Your task to perform on an android device: turn on improve location accuracy Image 0: 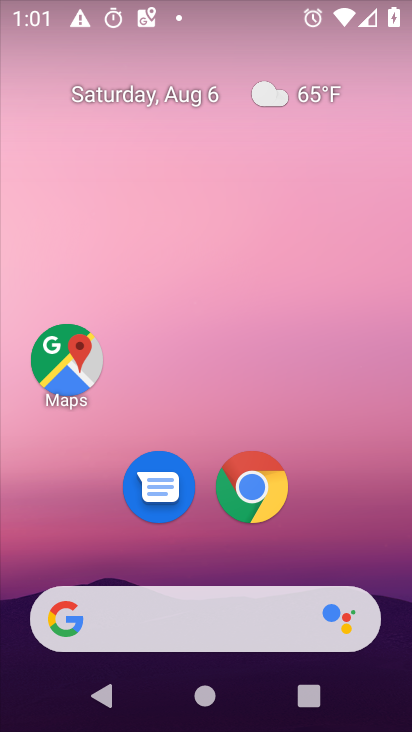
Step 0: drag from (209, 508) to (284, 56)
Your task to perform on an android device: turn on improve location accuracy Image 1: 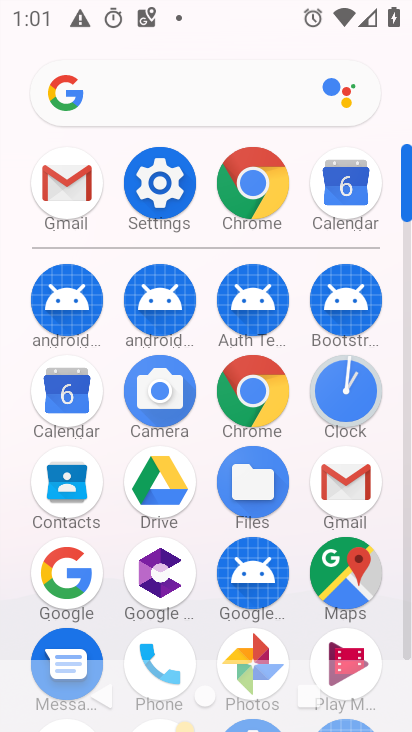
Step 1: click (175, 184)
Your task to perform on an android device: turn on improve location accuracy Image 2: 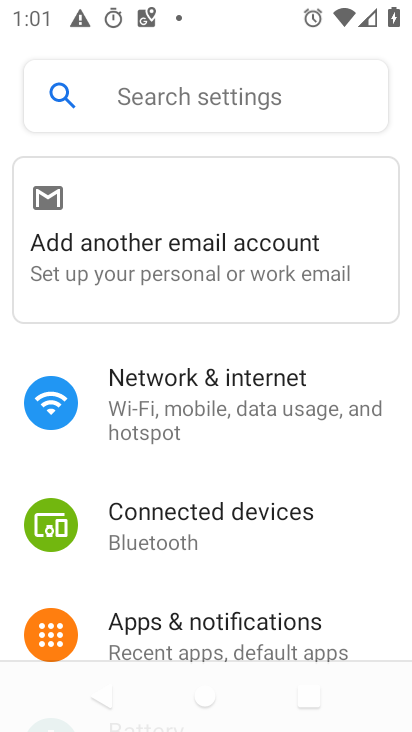
Step 2: drag from (193, 574) to (327, 17)
Your task to perform on an android device: turn on improve location accuracy Image 3: 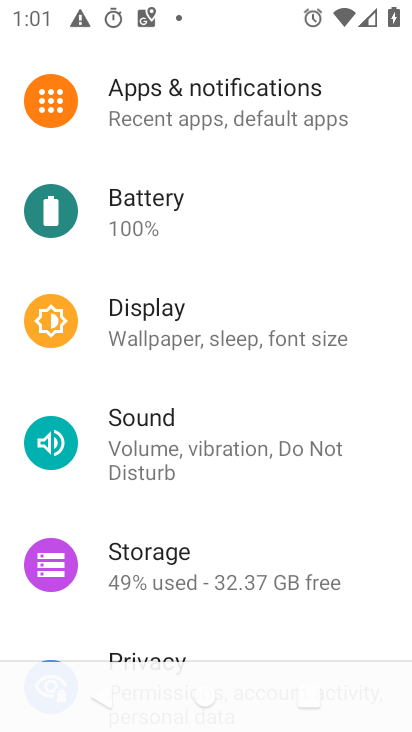
Step 3: drag from (208, 586) to (317, 45)
Your task to perform on an android device: turn on improve location accuracy Image 4: 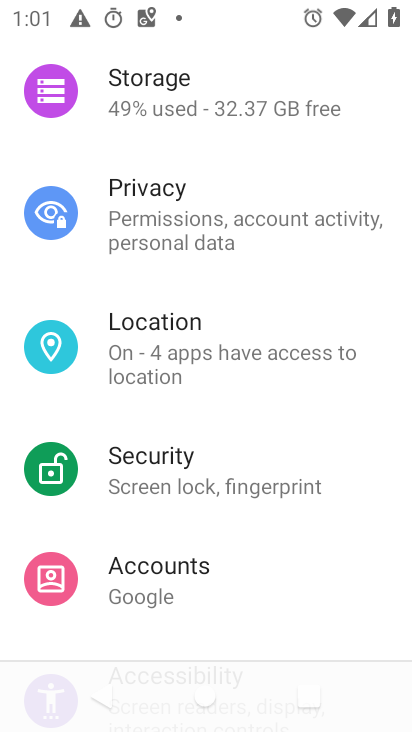
Step 4: click (202, 360)
Your task to perform on an android device: turn on improve location accuracy Image 5: 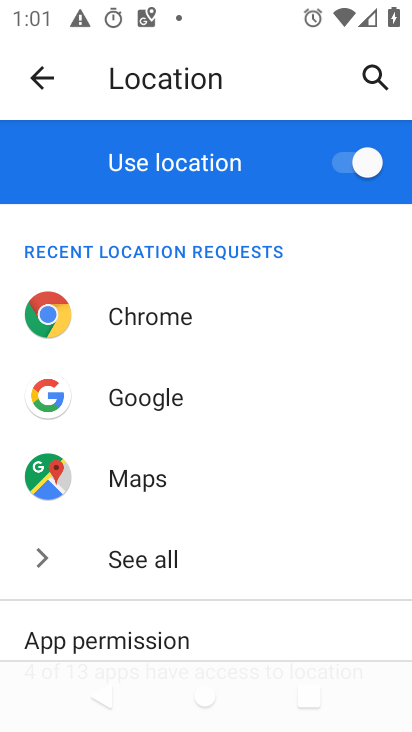
Step 5: drag from (203, 592) to (310, 50)
Your task to perform on an android device: turn on improve location accuracy Image 6: 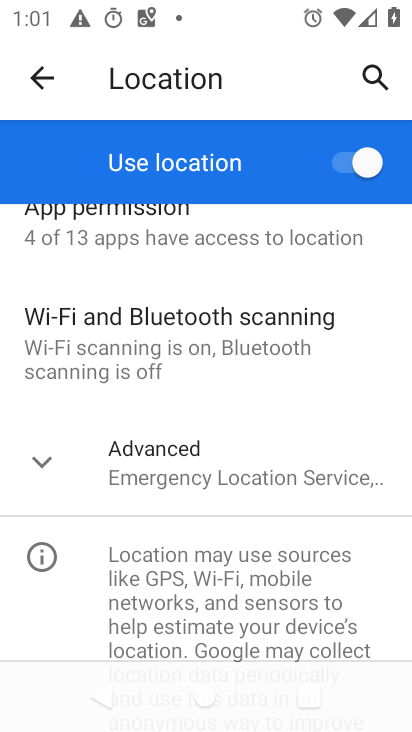
Step 6: click (236, 448)
Your task to perform on an android device: turn on improve location accuracy Image 7: 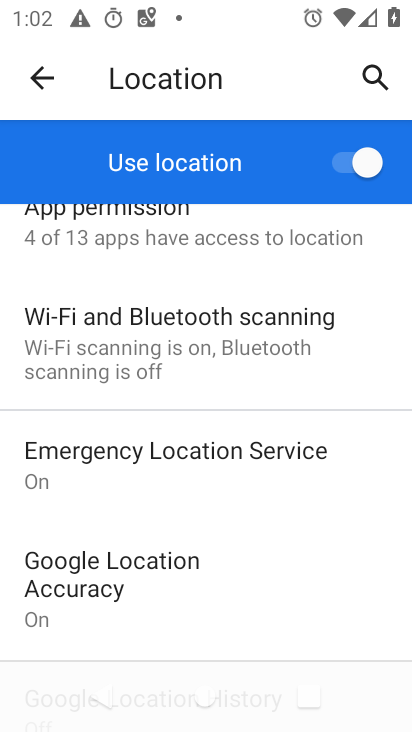
Step 7: click (233, 579)
Your task to perform on an android device: turn on improve location accuracy Image 8: 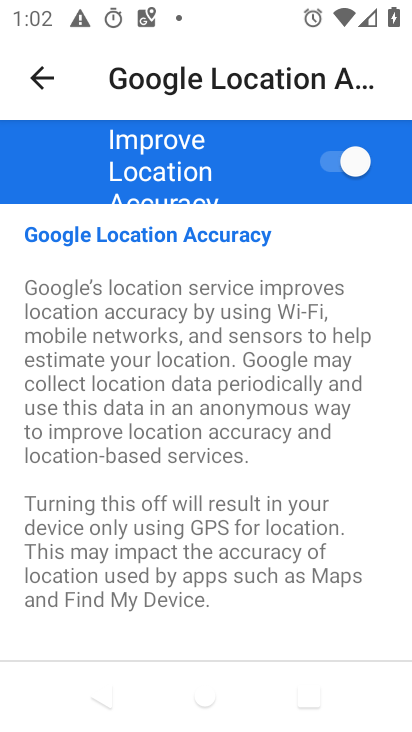
Step 8: task complete